Your task to perform on an android device: turn off airplane mode Image 0: 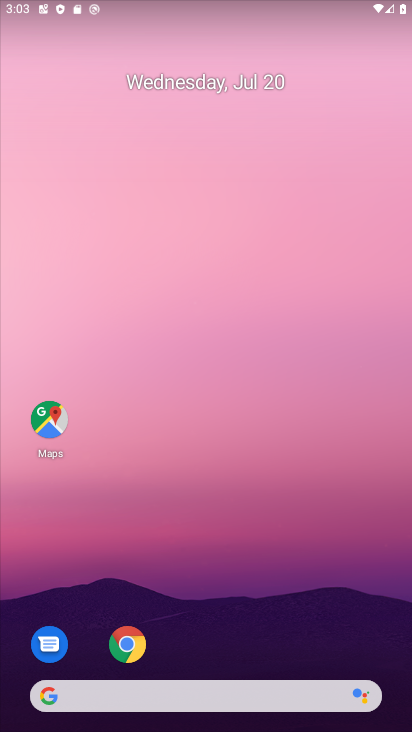
Step 0: drag from (215, 633) to (219, 368)
Your task to perform on an android device: turn off airplane mode Image 1: 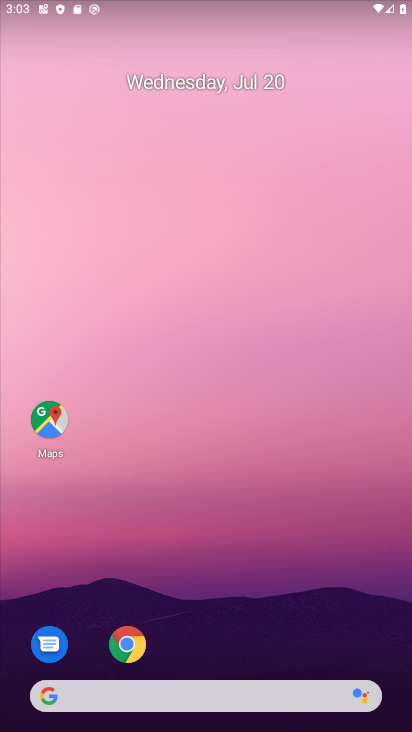
Step 1: drag from (239, 575) to (233, 319)
Your task to perform on an android device: turn off airplane mode Image 2: 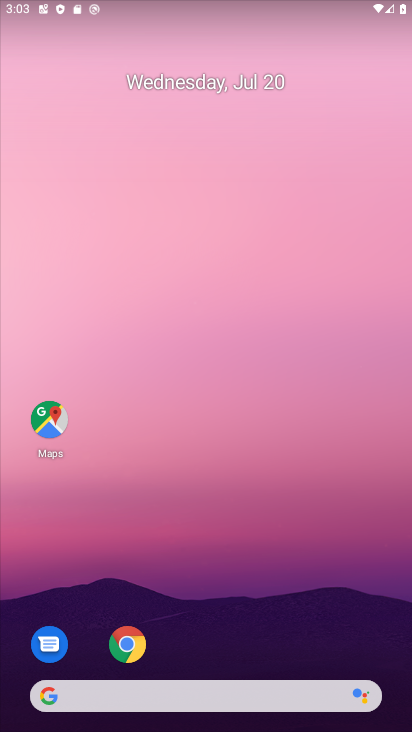
Step 2: drag from (133, 629) to (178, 268)
Your task to perform on an android device: turn off airplane mode Image 3: 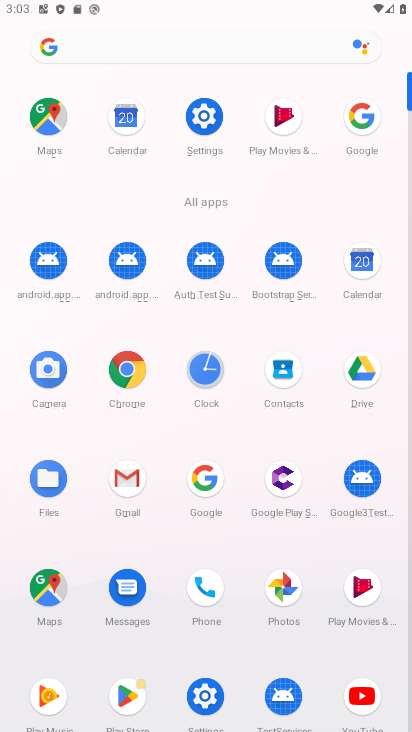
Step 3: click (197, 133)
Your task to perform on an android device: turn off airplane mode Image 4: 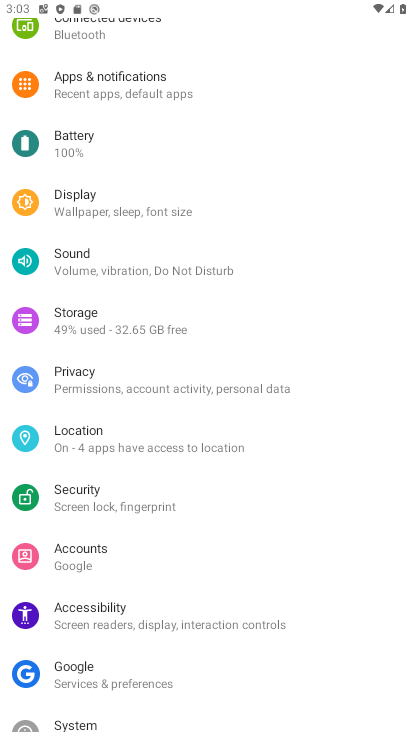
Step 4: drag from (100, 49) to (133, 411)
Your task to perform on an android device: turn off airplane mode Image 5: 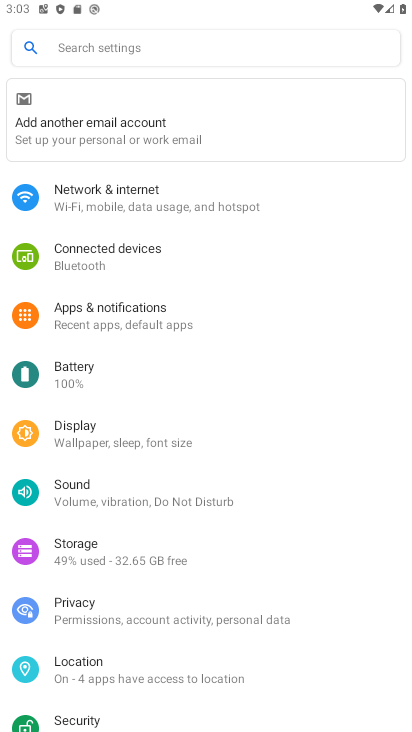
Step 5: click (96, 205)
Your task to perform on an android device: turn off airplane mode Image 6: 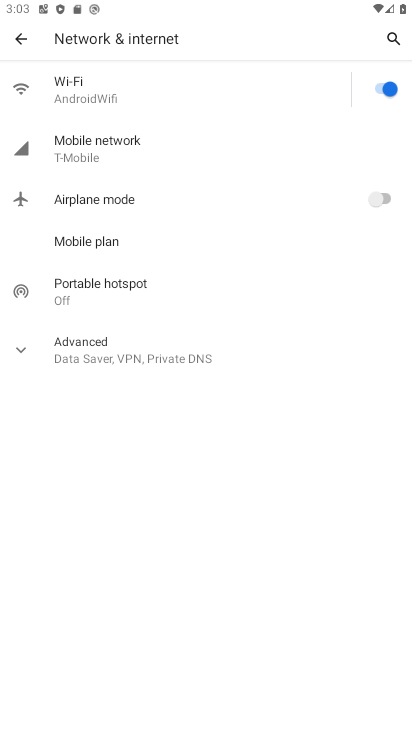
Step 6: task complete